Your task to perform on an android device: Go to Android settings Image 0: 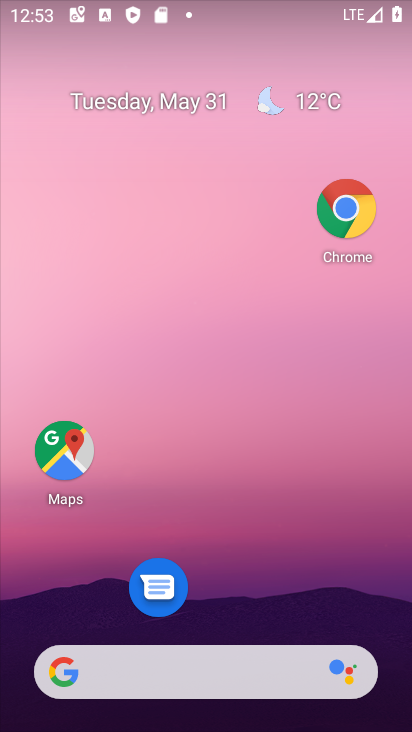
Step 0: drag from (252, 623) to (247, 251)
Your task to perform on an android device: Go to Android settings Image 1: 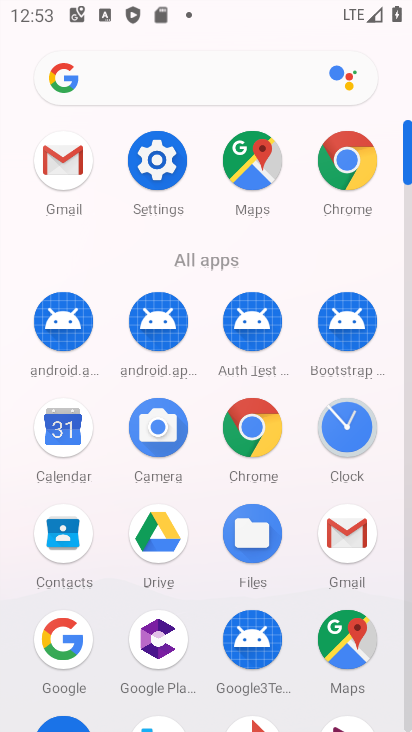
Step 1: click (157, 172)
Your task to perform on an android device: Go to Android settings Image 2: 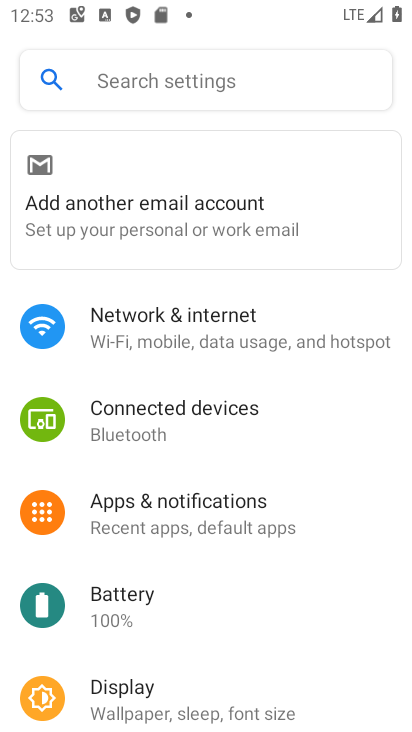
Step 2: task complete